Your task to perform on an android device: change the upload size in google photos Image 0: 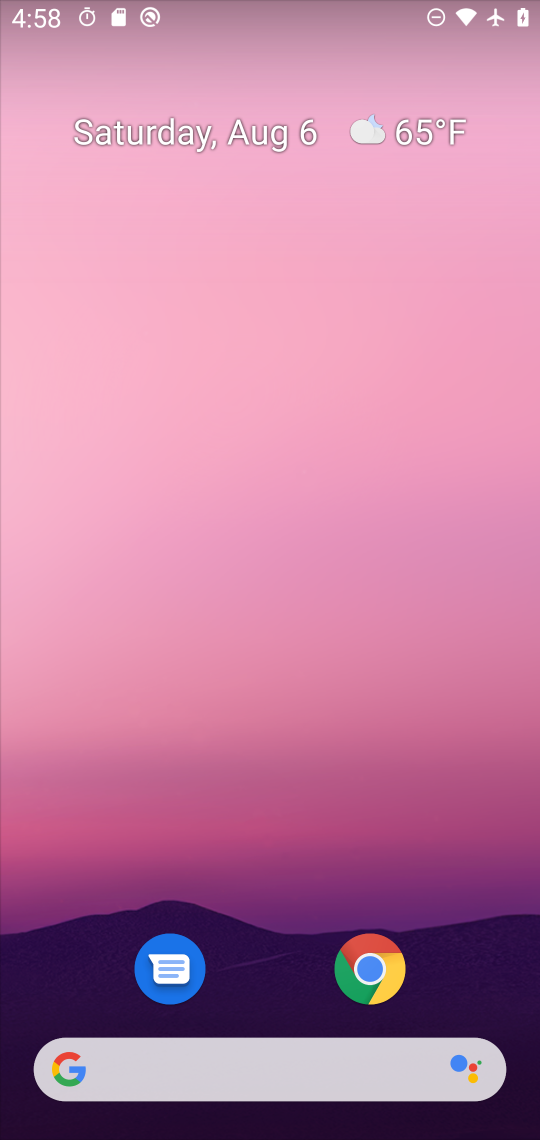
Step 0: press home button
Your task to perform on an android device: change the upload size in google photos Image 1: 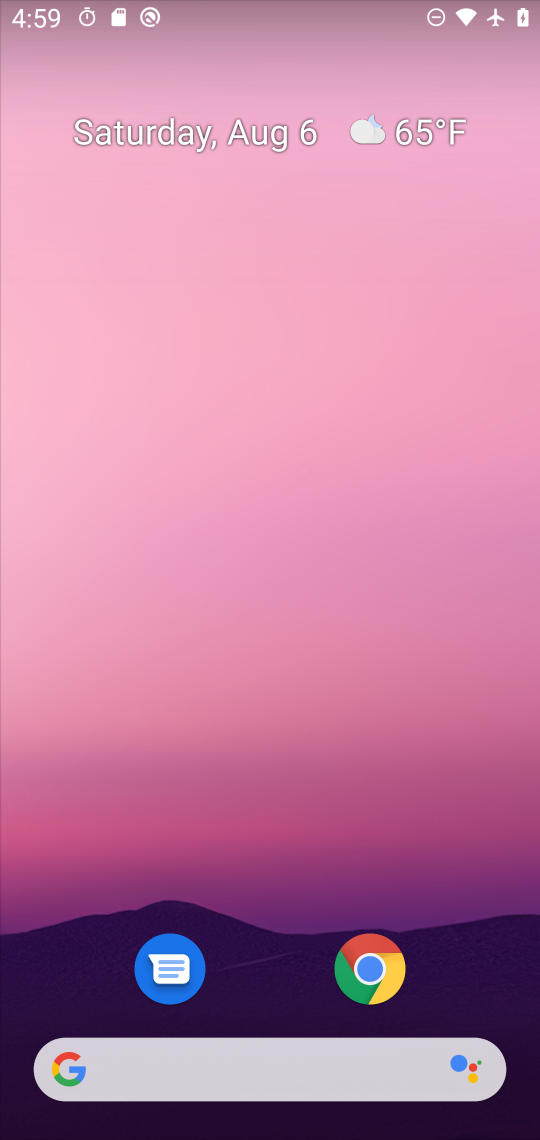
Step 1: drag from (286, 975) to (265, 152)
Your task to perform on an android device: change the upload size in google photos Image 2: 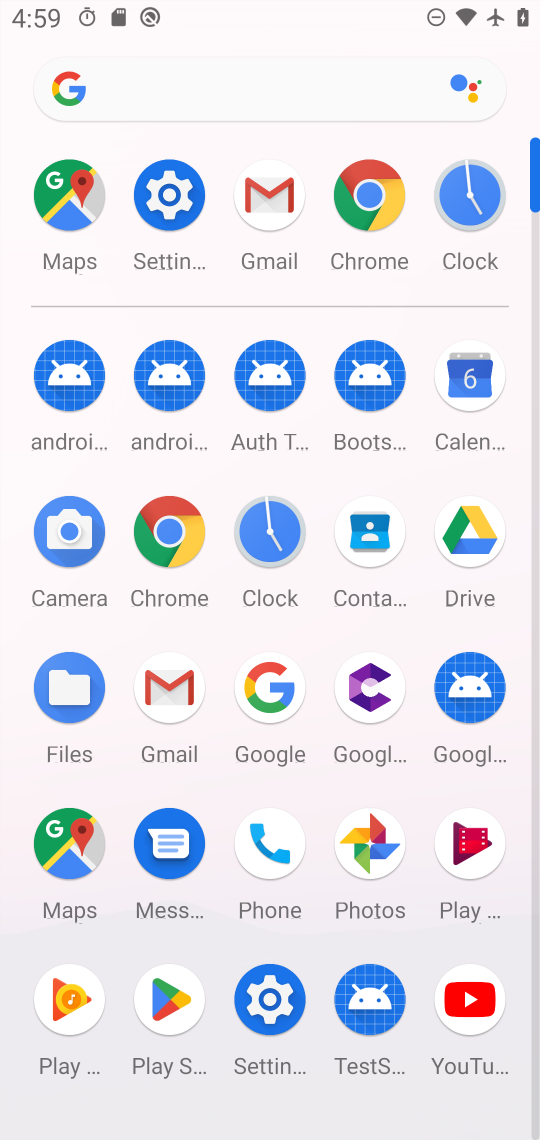
Step 2: click (369, 848)
Your task to perform on an android device: change the upload size in google photos Image 3: 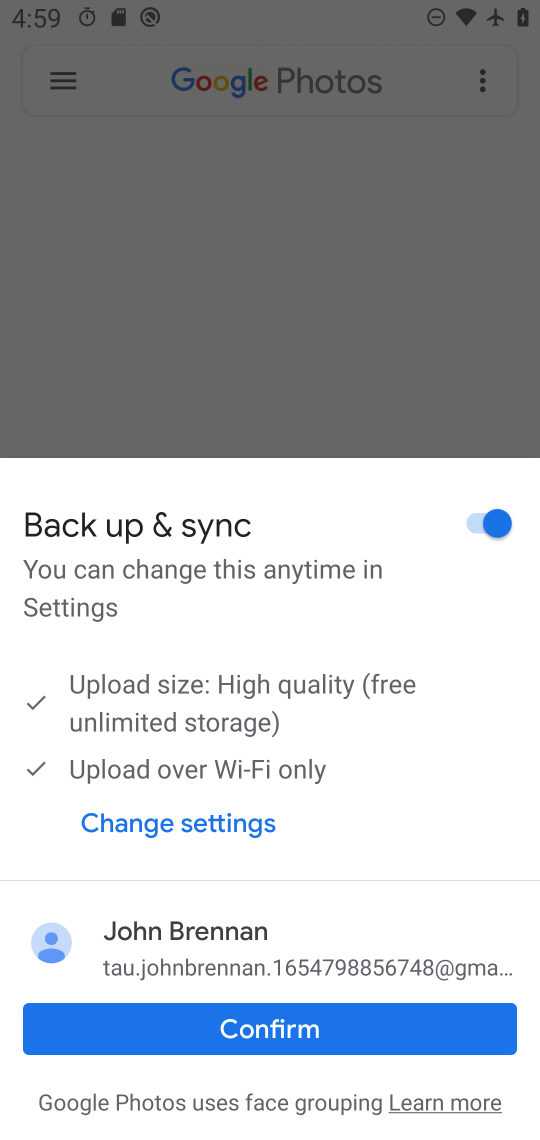
Step 3: click (189, 1033)
Your task to perform on an android device: change the upload size in google photos Image 4: 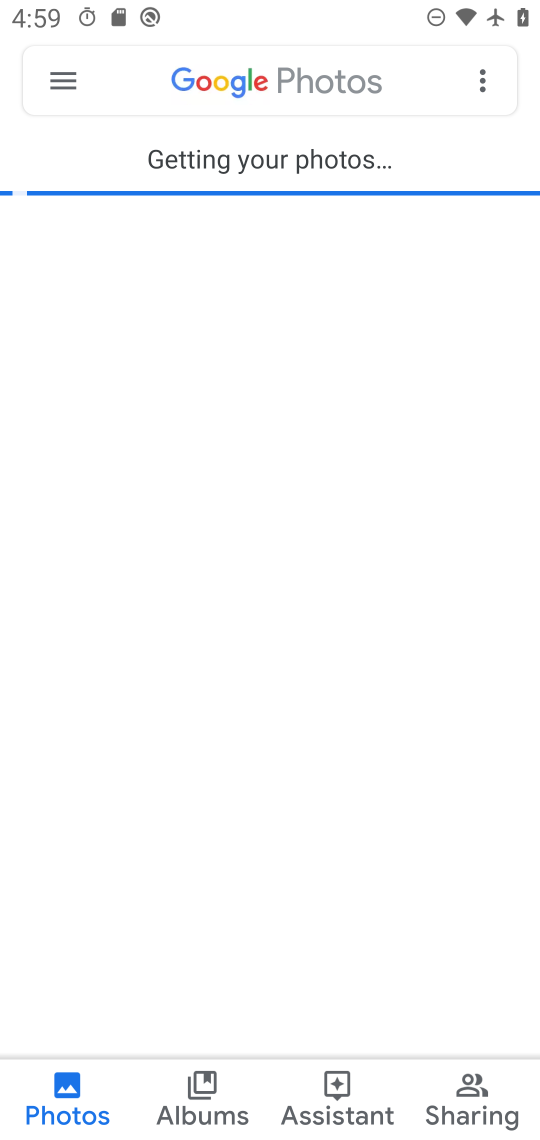
Step 4: click (59, 88)
Your task to perform on an android device: change the upload size in google photos Image 5: 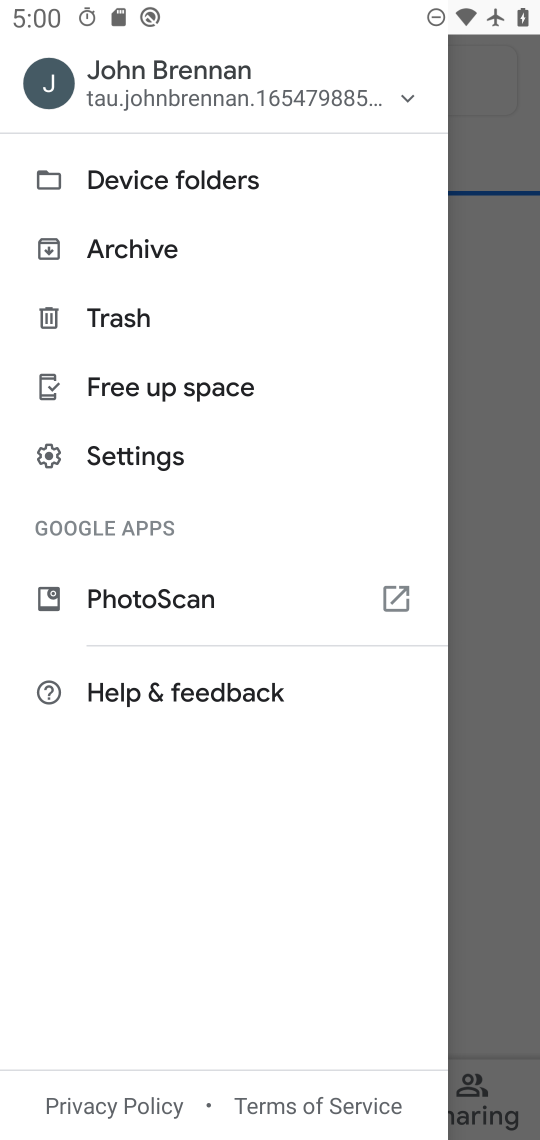
Step 5: click (143, 459)
Your task to perform on an android device: change the upload size in google photos Image 6: 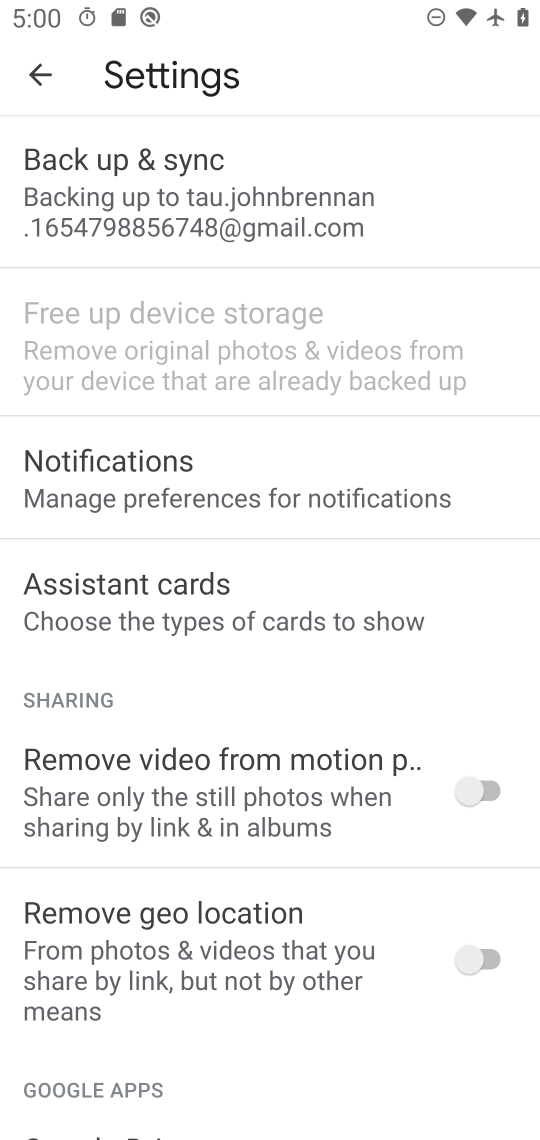
Step 6: click (224, 203)
Your task to perform on an android device: change the upload size in google photos Image 7: 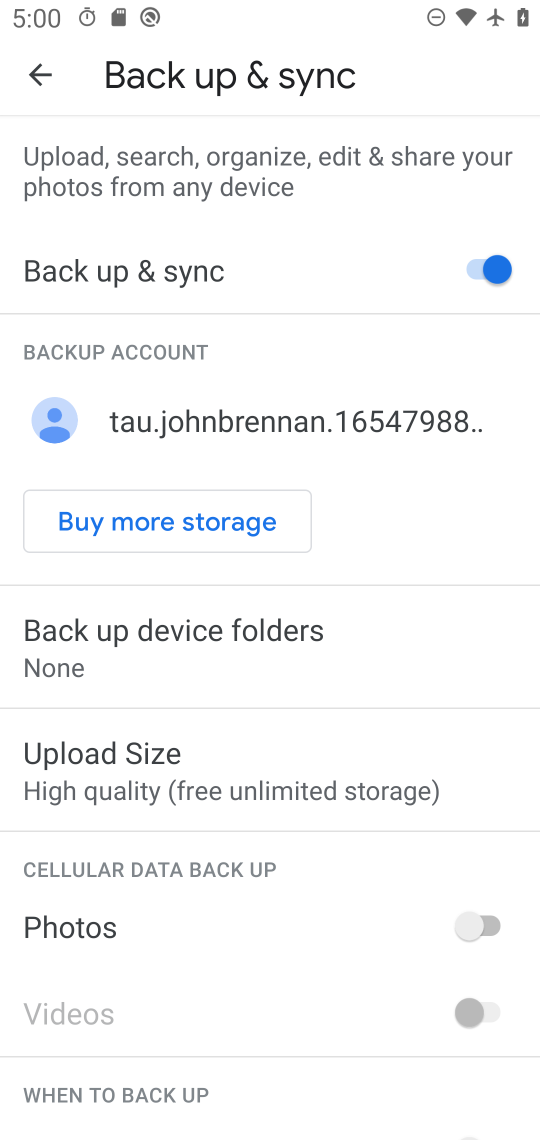
Step 7: click (101, 796)
Your task to perform on an android device: change the upload size in google photos Image 8: 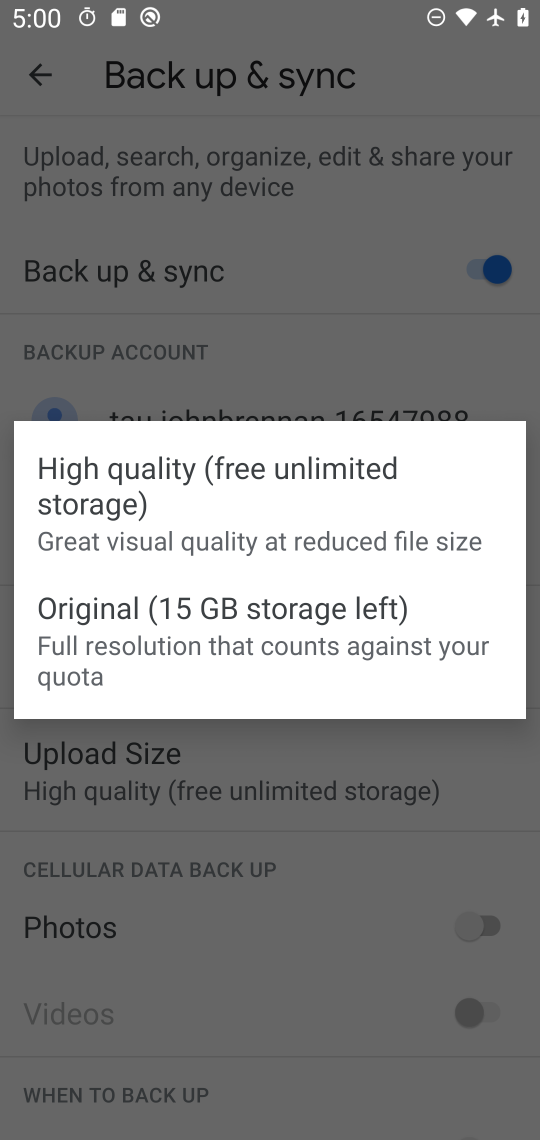
Step 8: click (77, 638)
Your task to perform on an android device: change the upload size in google photos Image 9: 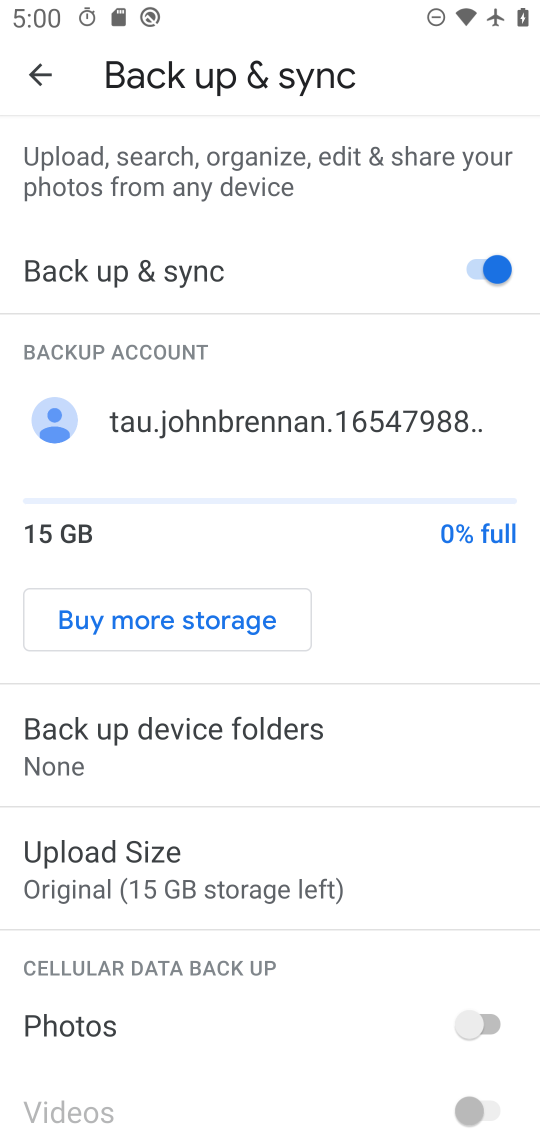
Step 9: task complete